Your task to perform on an android device: Go to settings Image 0: 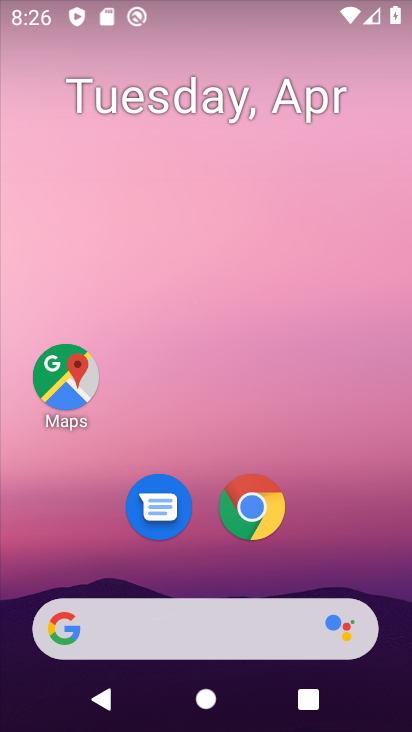
Step 0: drag from (192, 578) to (194, 146)
Your task to perform on an android device: Go to settings Image 1: 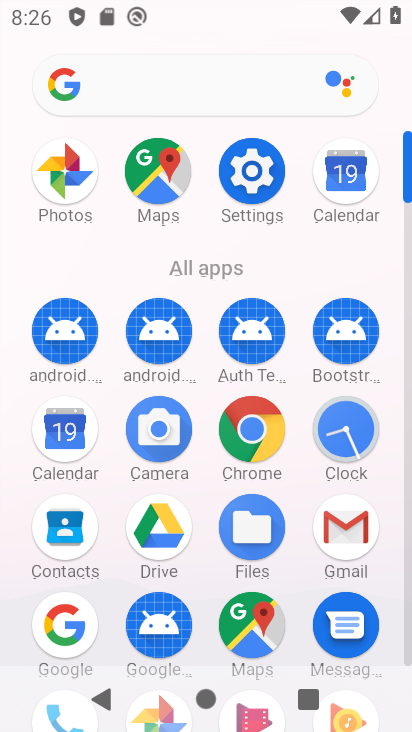
Step 1: click (257, 180)
Your task to perform on an android device: Go to settings Image 2: 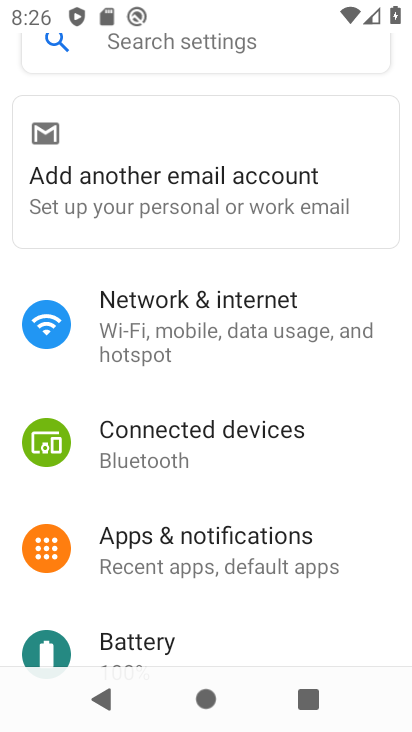
Step 2: task complete